Your task to perform on an android device: toggle airplane mode Image 0: 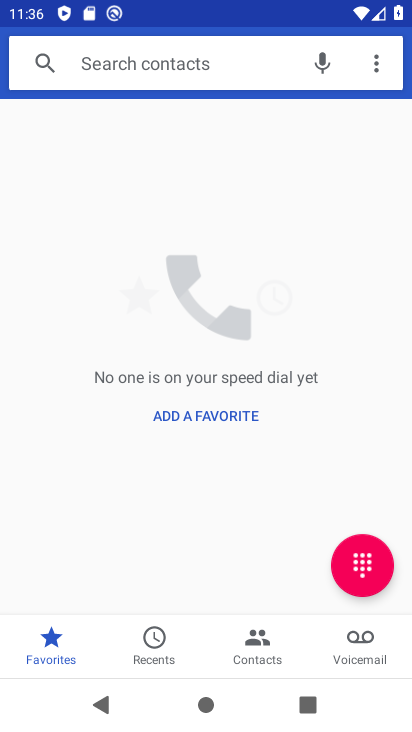
Step 0: press home button
Your task to perform on an android device: toggle airplane mode Image 1: 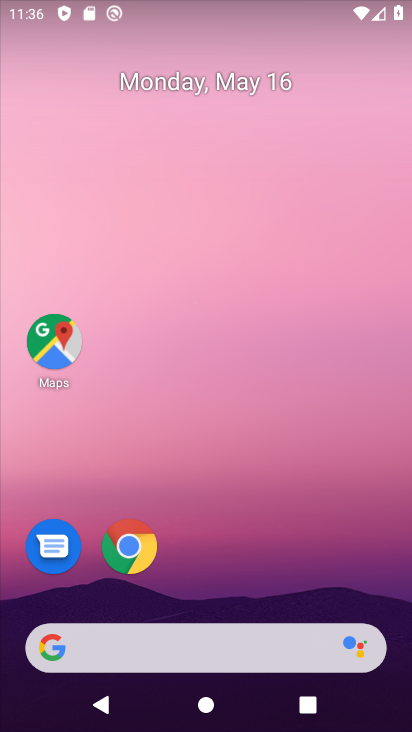
Step 1: drag from (400, 635) to (298, 11)
Your task to perform on an android device: toggle airplane mode Image 2: 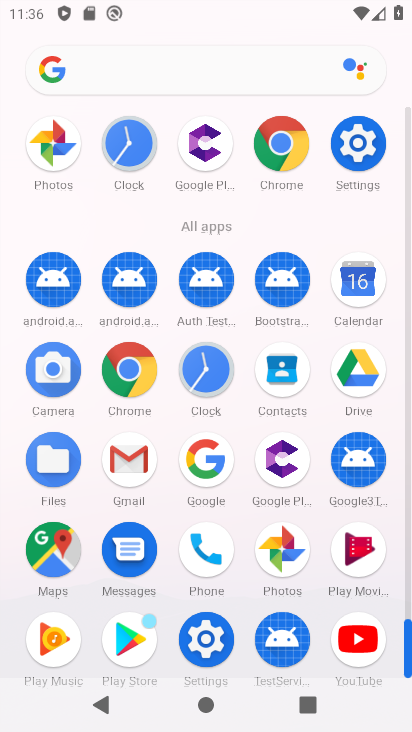
Step 2: click (203, 642)
Your task to perform on an android device: toggle airplane mode Image 3: 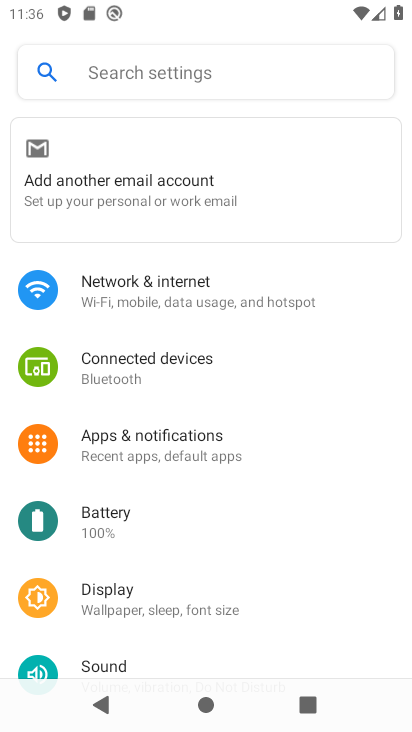
Step 3: click (127, 286)
Your task to perform on an android device: toggle airplane mode Image 4: 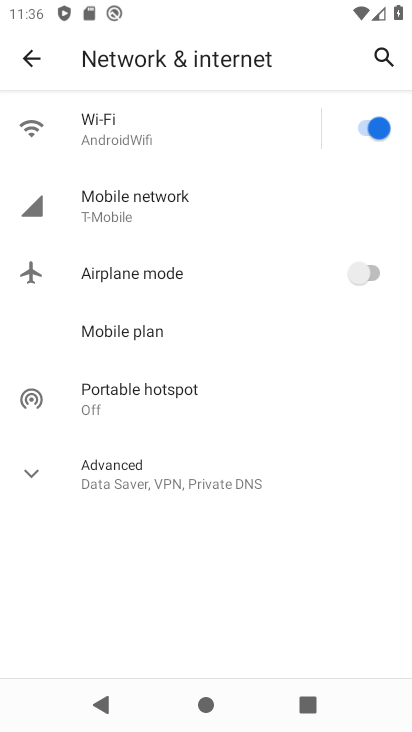
Step 4: click (366, 271)
Your task to perform on an android device: toggle airplane mode Image 5: 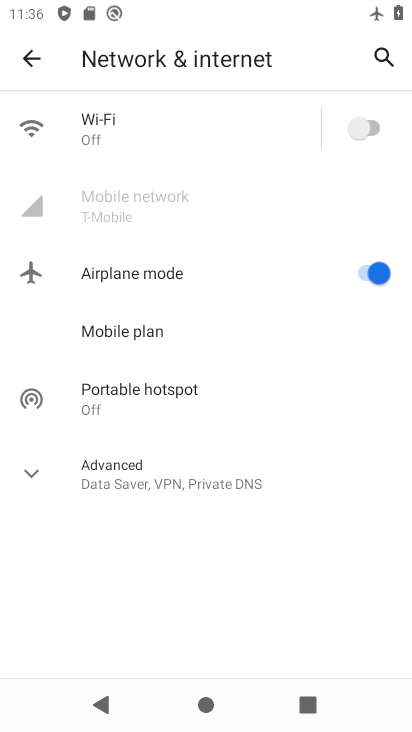
Step 5: task complete